Your task to perform on an android device: create a new album in the google photos Image 0: 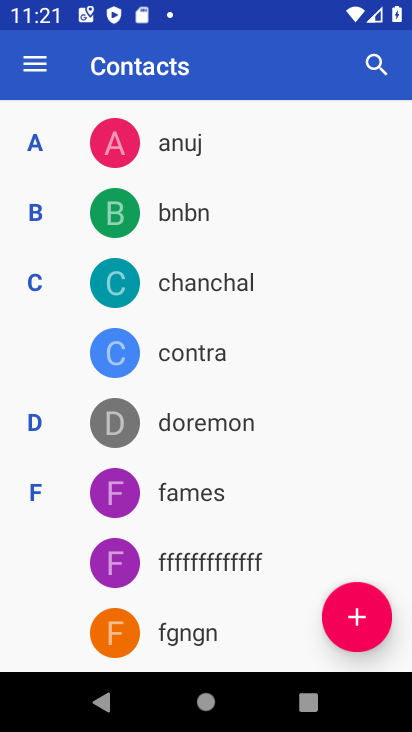
Step 0: press home button
Your task to perform on an android device: create a new album in the google photos Image 1: 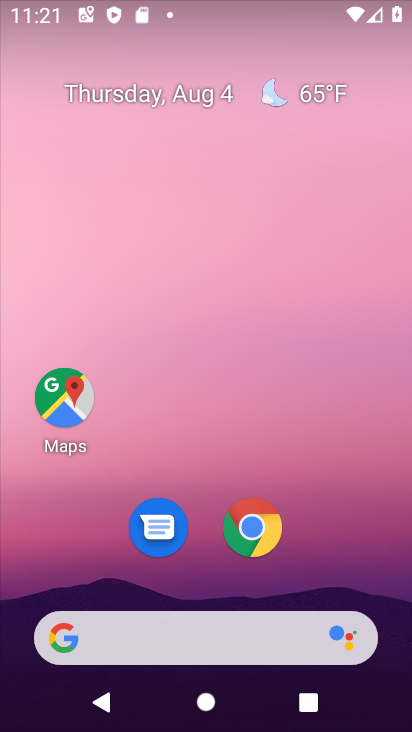
Step 1: drag from (155, 656) to (229, 152)
Your task to perform on an android device: create a new album in the google photos Image 2: 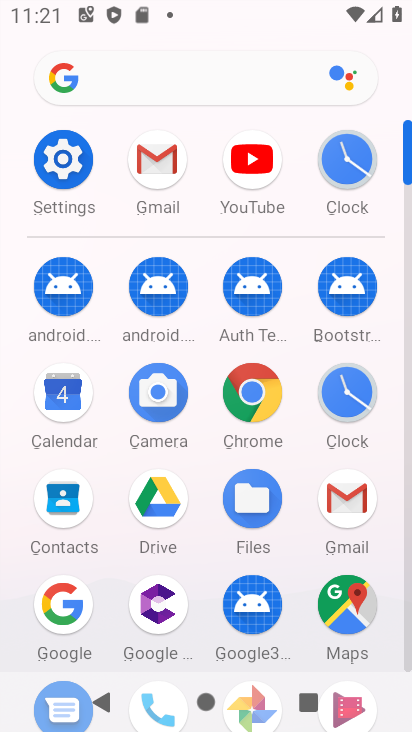
Step 2: drag from (270, 632) to (318, 173)
Your task to perform on an android device: create a new album in the google photos Image 3: 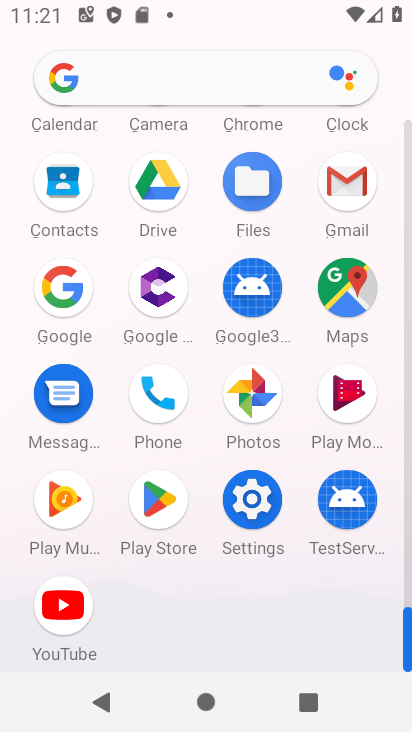
Step 3: click (262, 399)
Your task to perform on an android device: create a new album in the google photos Image 4: 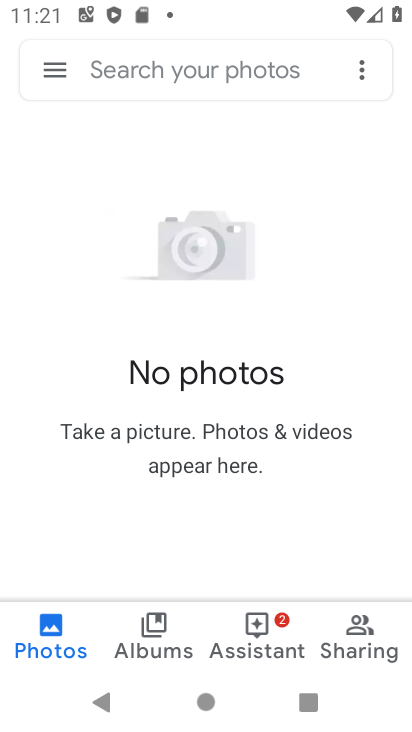
Step 4: click (149, 629)
Your task to perform on an android device: create a new album in the google photos Image 5: 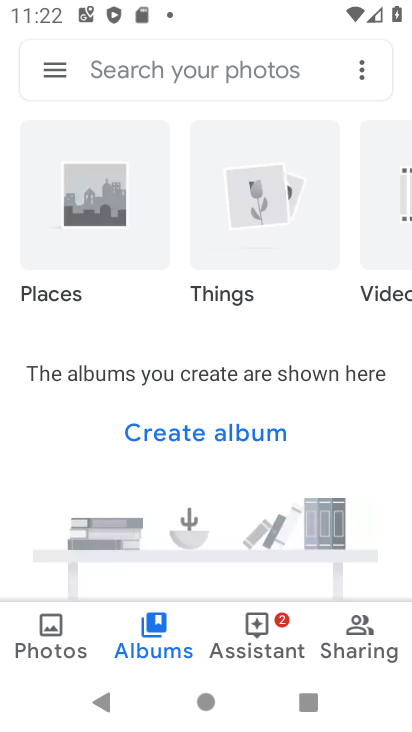
Step 5: task complete